Your task to perform on an android device: What is the news today? Image 0: 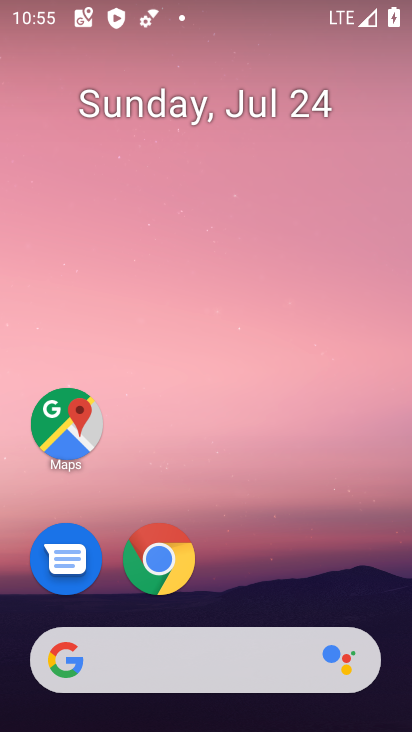
Step 0: click (162, 673)
Your task to perform on an android device: What is the news today? Image 1: 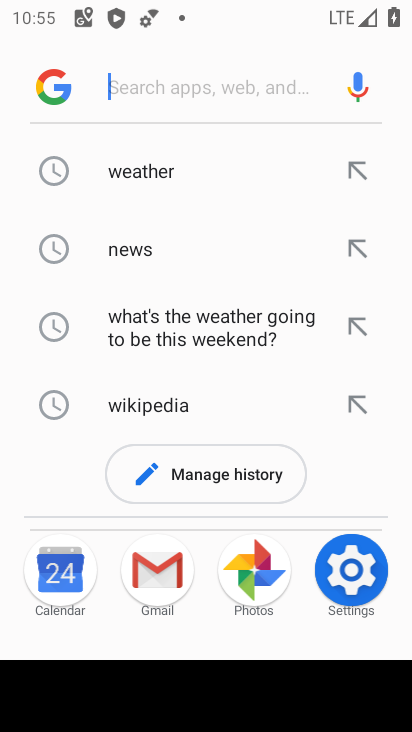
Step 1: click (143, 248)
Your task to perform on an android device: What is the news today? Image 2: 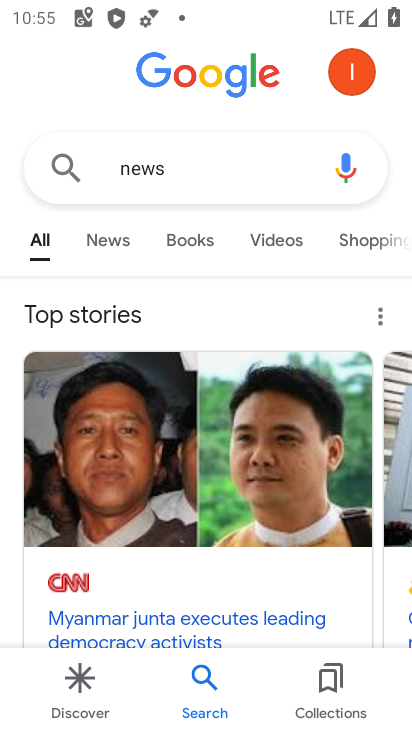
Step 2: task complete